Your task to perform on an android device: Open the phone app and click the voicemail tab. Image 0: 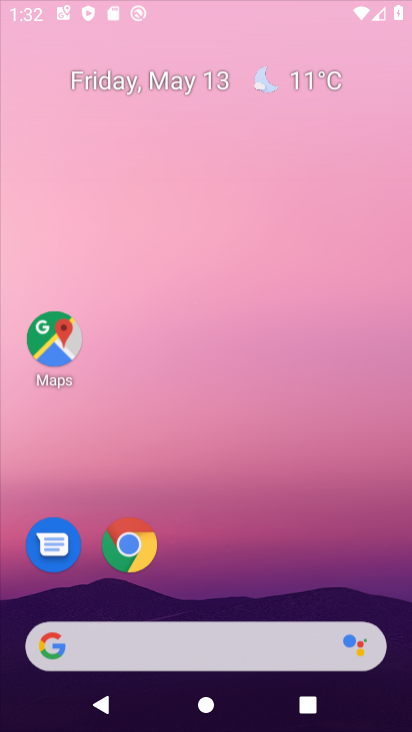
Step 0: click (262, 35)
Your task to perform on an android device: Open the phone app and click the voicemail tab. Image 1: 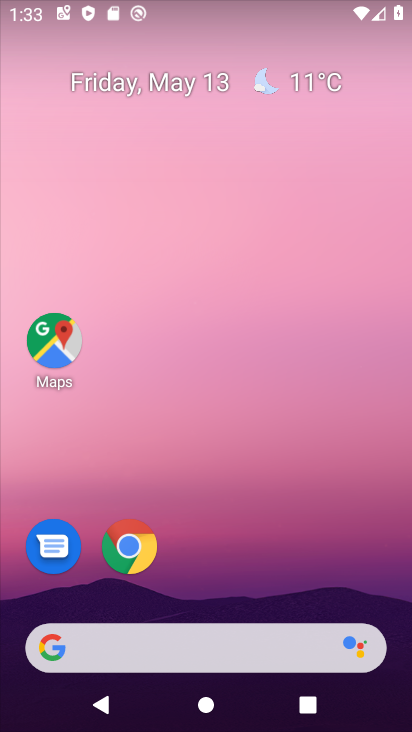
Step 1: drag from (234, 621) to (293, 186)
Your task to perform on an android device: Open the phone app and click the voicemail tab. Image 2: 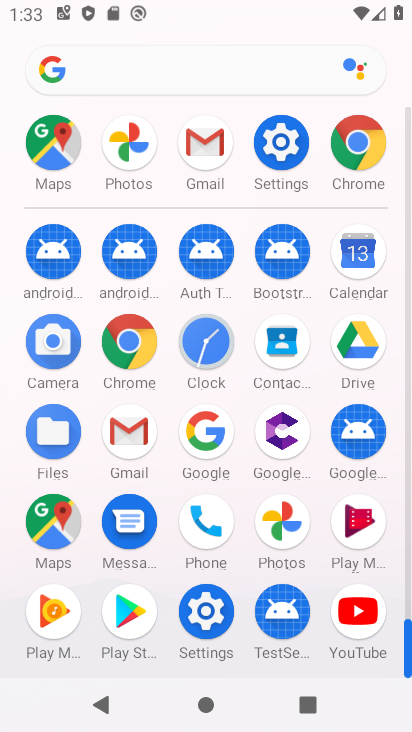
Step 2: click (212, 510)
Your task to perform on an android device: Open the phone app and click the voicemail tab. Image 3: 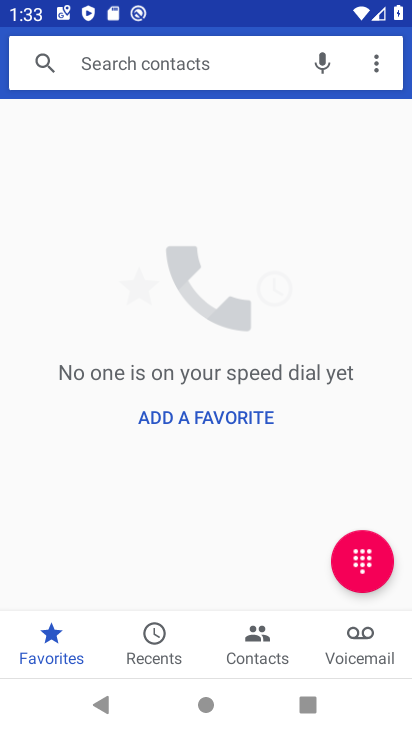
Step 3: click (349, 656)
Your task to perform on an android device: Open the phone app and click the voicemail tab. Image 4: 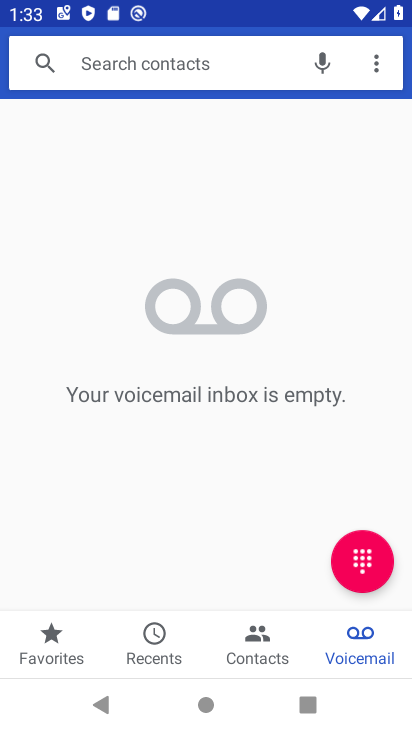
Step 4: task complete